Your task to perform on an android device: open the mobile data screen to see how much data has been used Image 0: 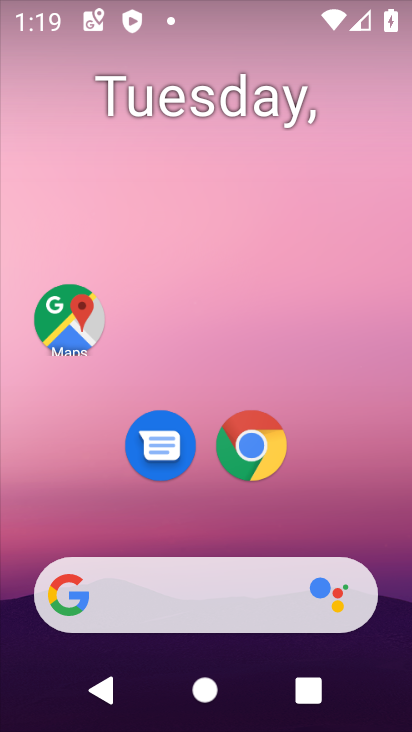
Step 0: press home button
Your task to perform on an android device: open the mobile data screen to see how much data has been used Image 1: 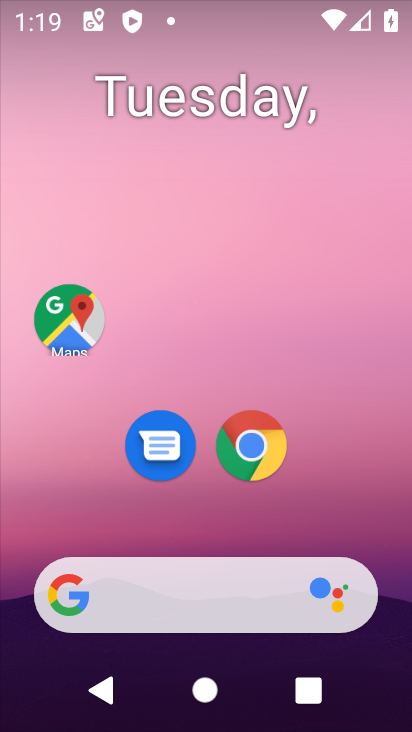
Step 1: drag from (214, 521) to (210, 46)
Your task to perform on an android device: open the mobile data screen to see how much data has been used Image 2: 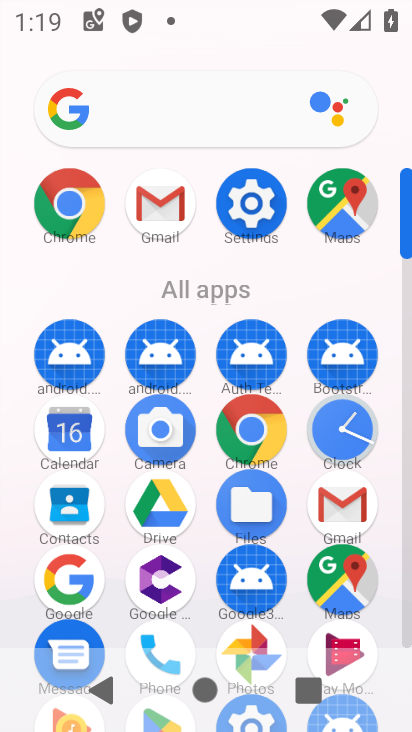
Step 2: drag from (197, 511) to (196, 88)
Your task to perform on an android device: open the mobile data screen to see how much data has been used Image 3: 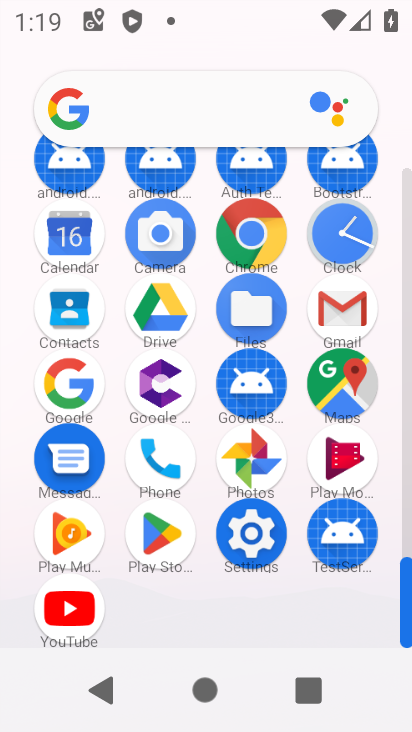
Step 3: click (66, 377)
Your task to perform on an android device: open the mobile data screen to see how much data has been used Image 4: 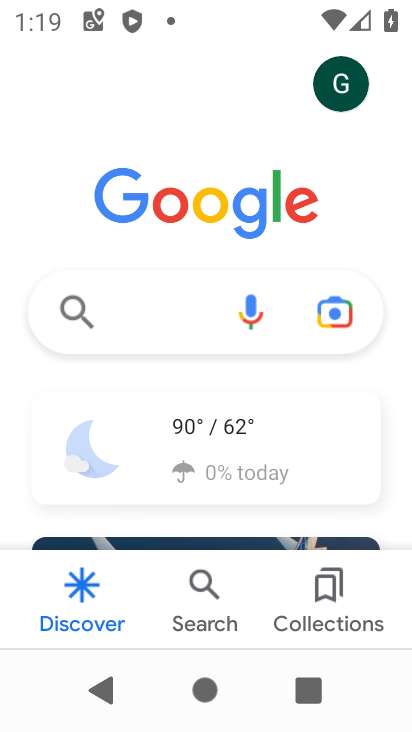
Step 4: press home button
Your task to perform on an android device: open the mobile data screen to see how much data has been used Image 5: 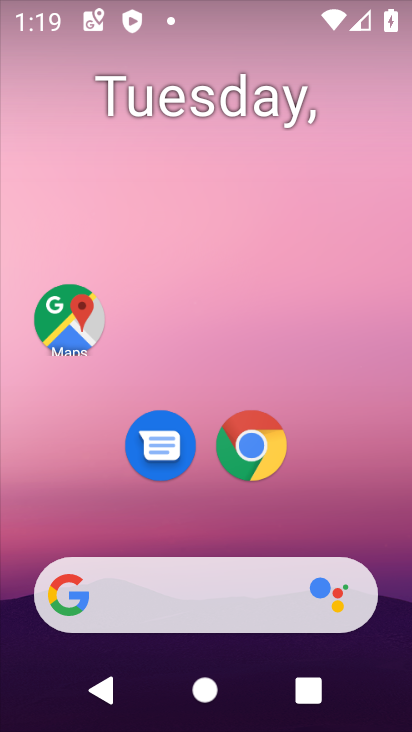
Step 5: drag from (211, 527) to (207, 1)
Your task to perform on an android device: open the mobile data screen to see how much data has been used Image 6: 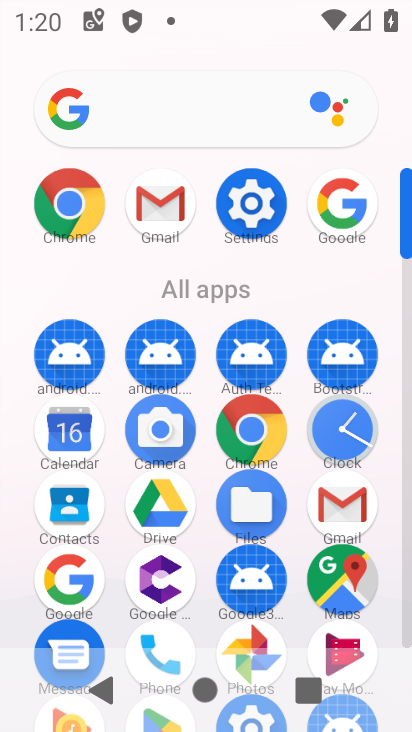
Step 6: click (249, 197)
Your task to perform on an android device: open the mobile data screen to see how much data has been used Image 7: 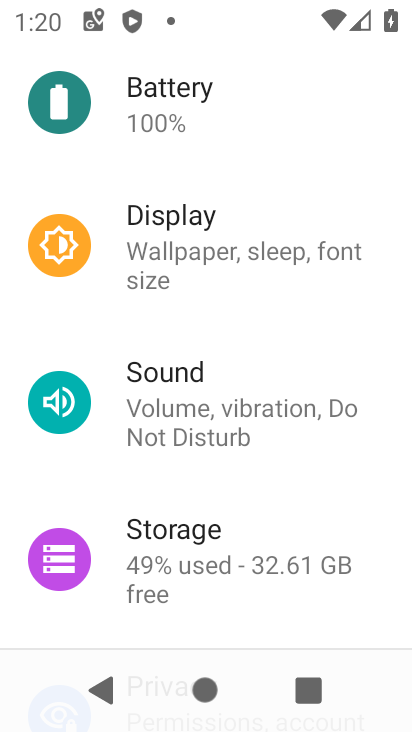
Step 7: drag from (178, 155) to (201, 632)
Your task to perform on an android device: open the mobile data screen to see how much data has been used Image 8: 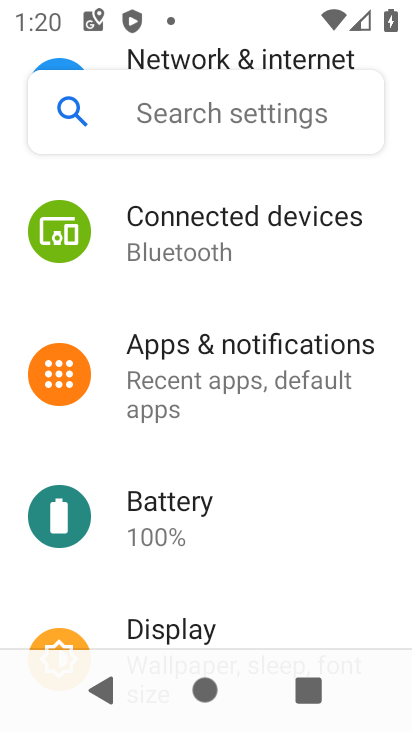
Step 8: drag from (109, 194) to (124, 629)
Your task to perform on an android device: open the mobile data screen to see how much data has been used Image 9: 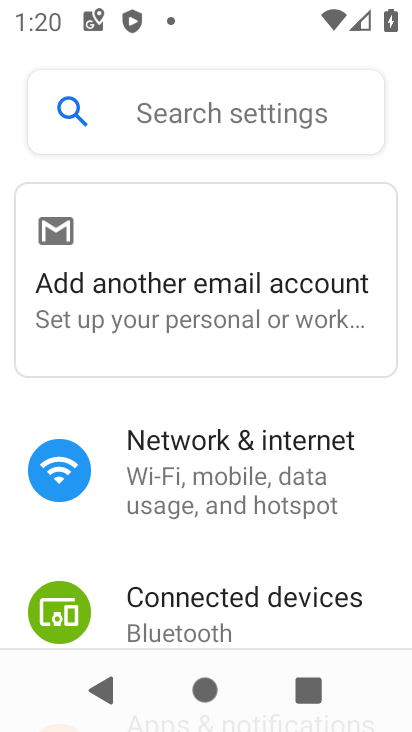
Step 9: click (209, 473)
Your task to perform on an android device: open the mobile data screen to see how much data has been used Image 10: 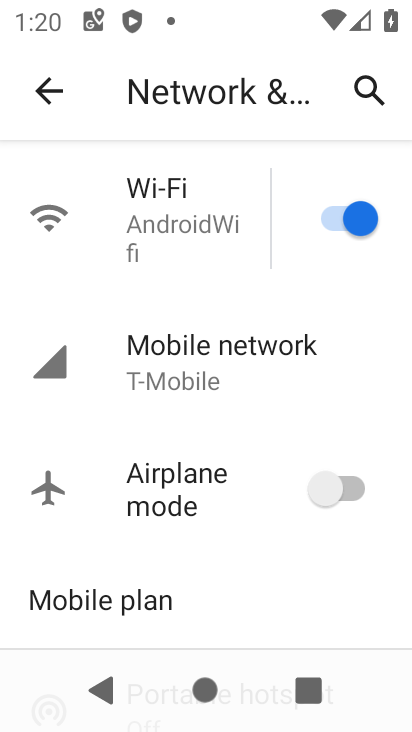
Step 10: click (233, 366)
Your task to perform on an android device: open the mobile data screen to see how much data has been used Image 11: 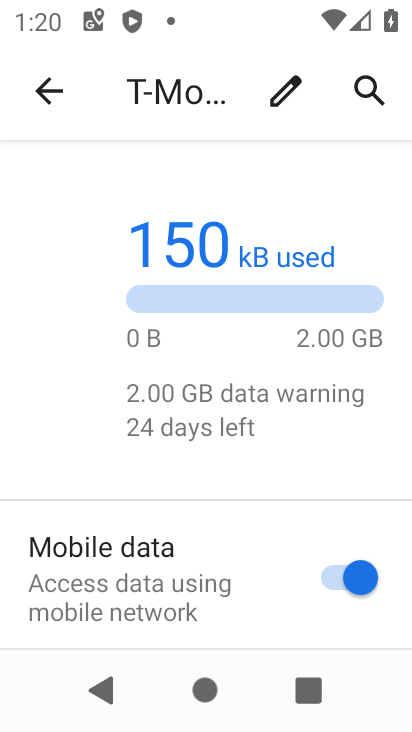
Step 11: drag from (202, 497) to (206, 180)
Your task to perform on an android device: open the mobile data screen to see how much data has been used Image 12: 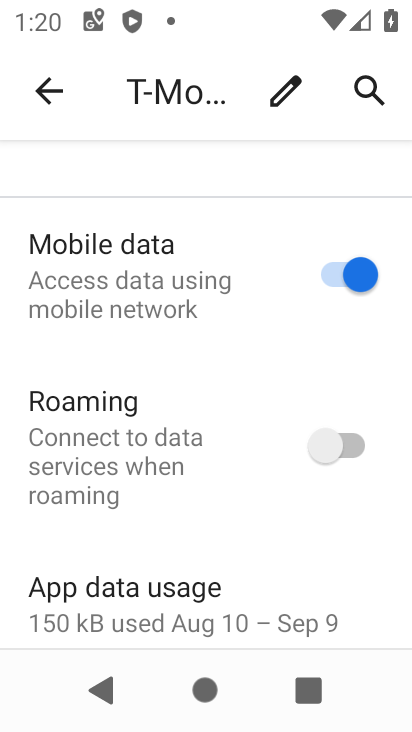
Step 12: click (250, 593)
Your task to perform on an android device: open the mobile data screen to see how much data has been used Image 13: 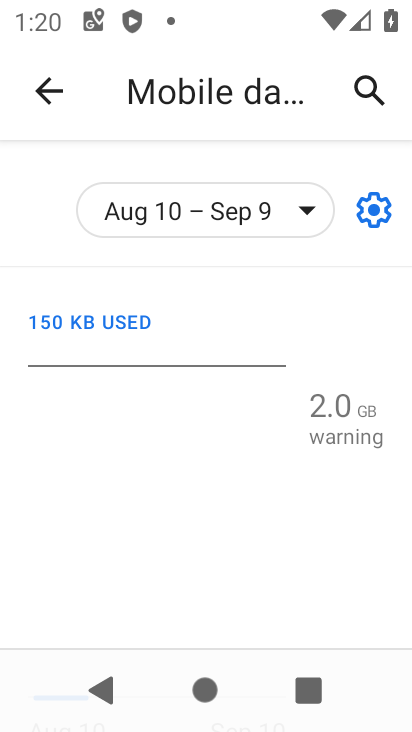
Step 13: task complete